Your task to perform on an android device: What's on my calendar today? Image 0: 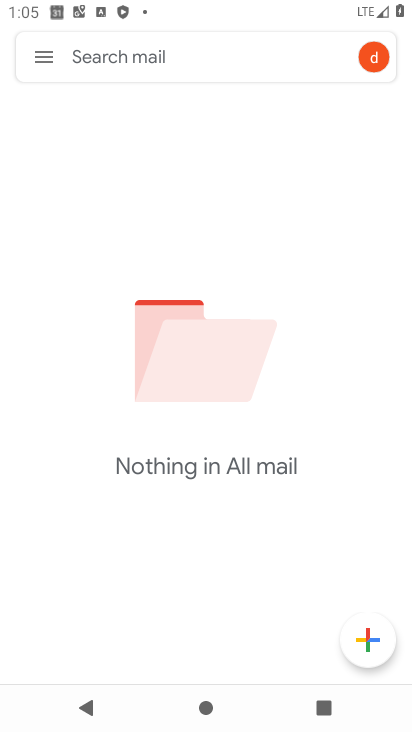
Step 0: press home button
Your task to perform on an android device: What's on my calendar today? Image 1: 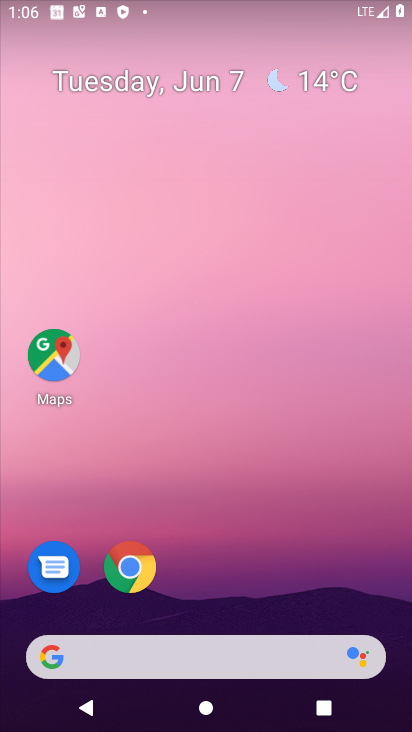
Step 1: click (272, 614)
Your task to perform on an android device: What's on my calendar today? Image 2: 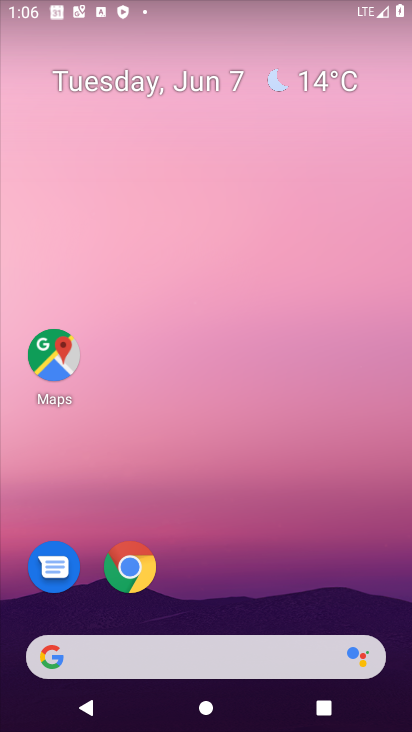
Step 2: drag from (277, 636) to (324, 98)
Your task to perform on an android device: What's on my calendar today? Image 3: 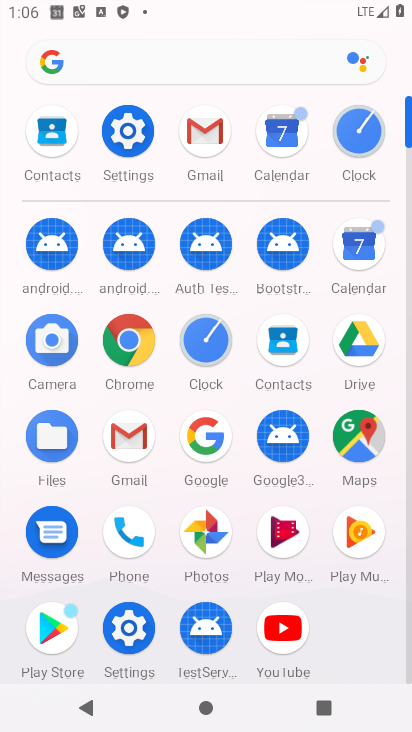
Step 3: click (383, 237)
Your task to perform on an android device: What's on my calendar today? Image 4: 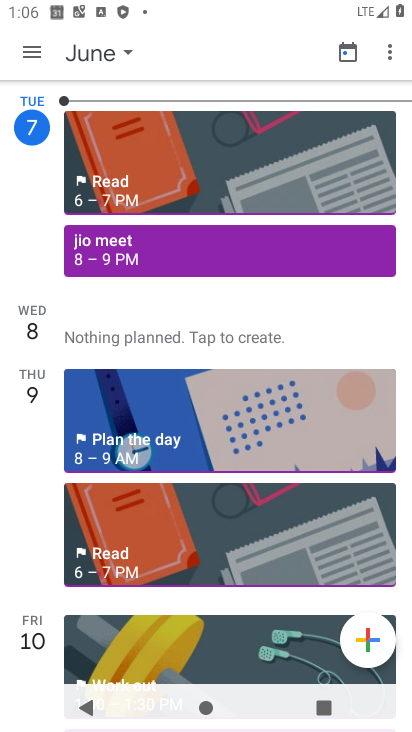
Step 4: click (127, 53)
Your task to perform on an android device: What's on my calendar today? Image 5: 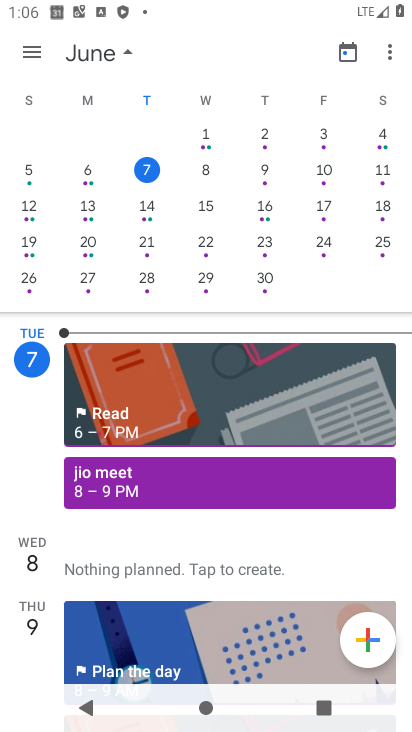
Step 5: click (136, 169)
Your task to perform on an android device: What's on my calendar today? Image 6: 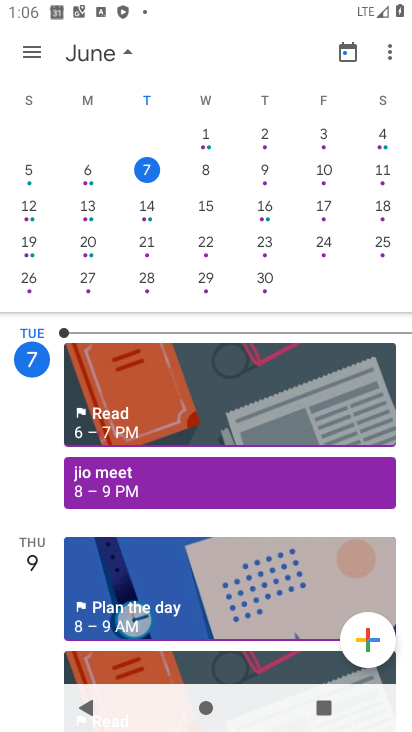
Step 6: task complete